Your task to perform on an android device: Show me the alarms in the clock app Image 0: 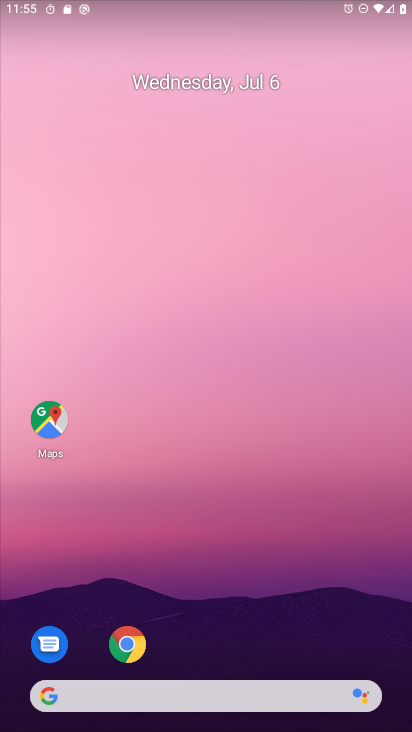
Step 0: drag from (232, 653) to (371, 87)
Your task to perform on an android device: Show me the alarms in the clock app Image 1: 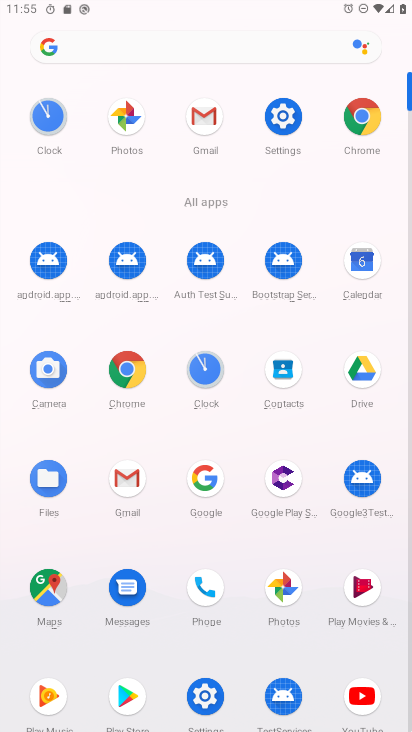
Step 1: click (207, 358)
Your task to perform on an android device: Show me the alarms in the clock app Image 2: 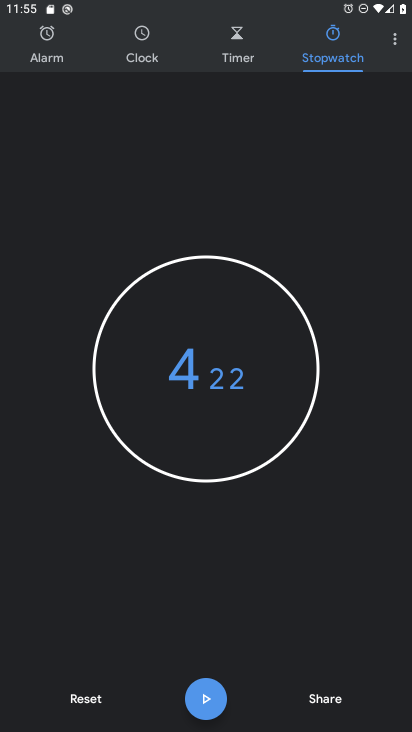
Step 2: click (44, 45)
Your task to perform on an android device: Show me the alarms in the clock app Image 3: 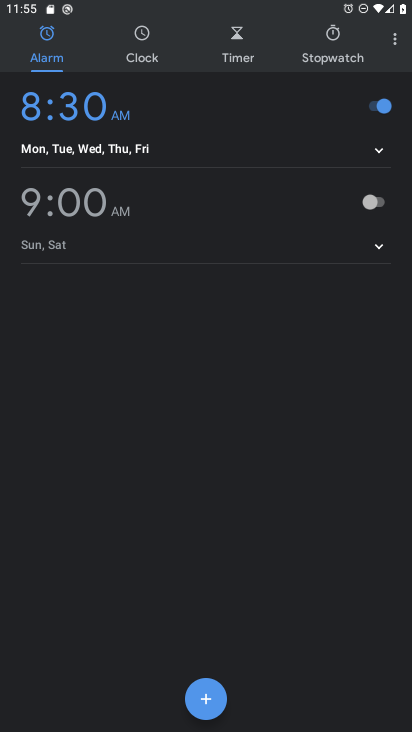
Step 3: click (376, 199)
Your task to perform on an android device: Show me the alarms in the clock app Image 4: 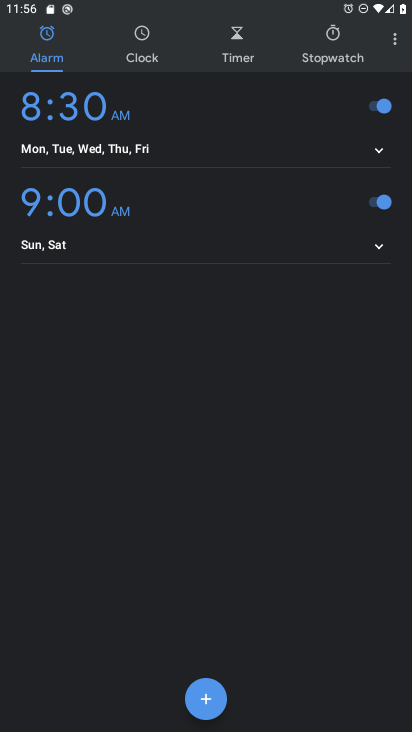
Step 4: task complete